Your task to perform on an android device: turn notification dots off Image 0: 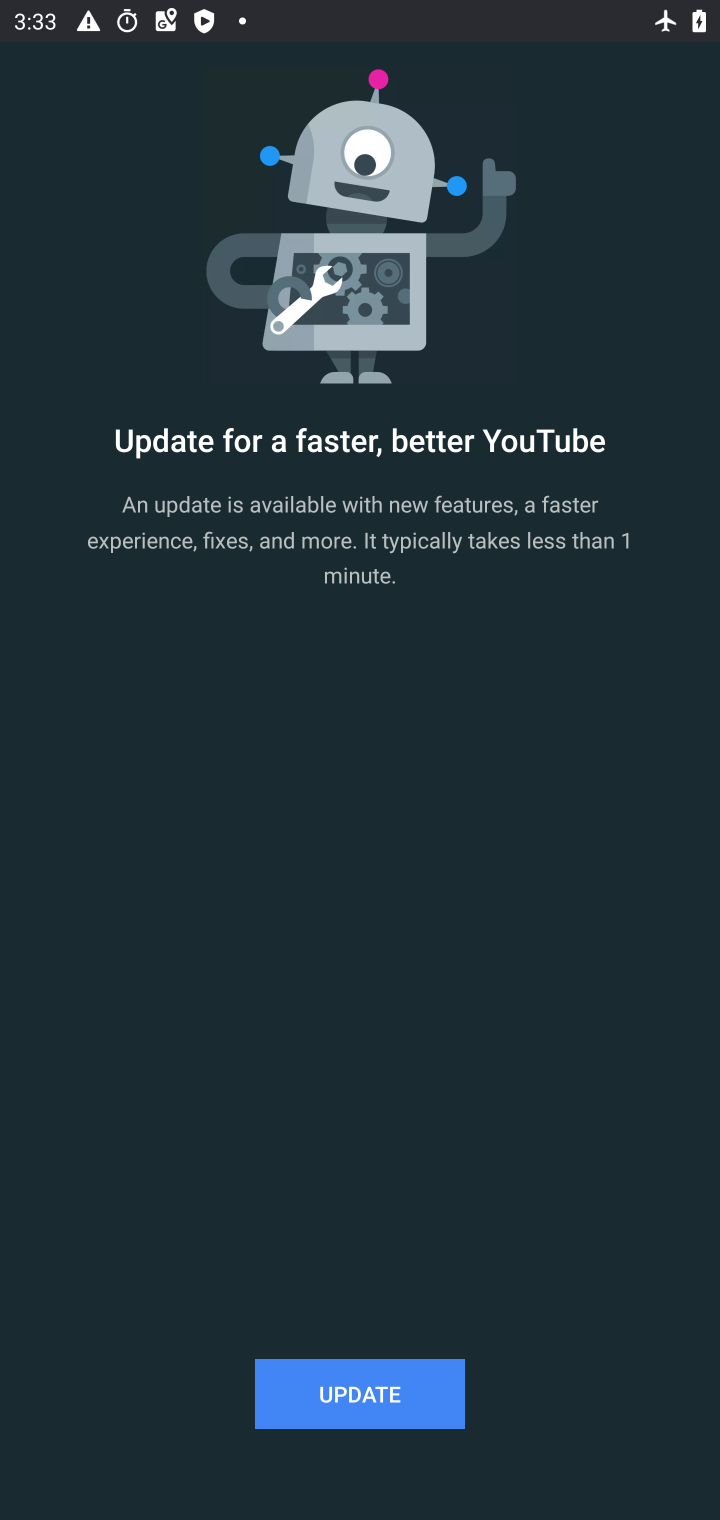
Step 0: press back button
Your task to perform on an android device: turn notification dots off Image 1: 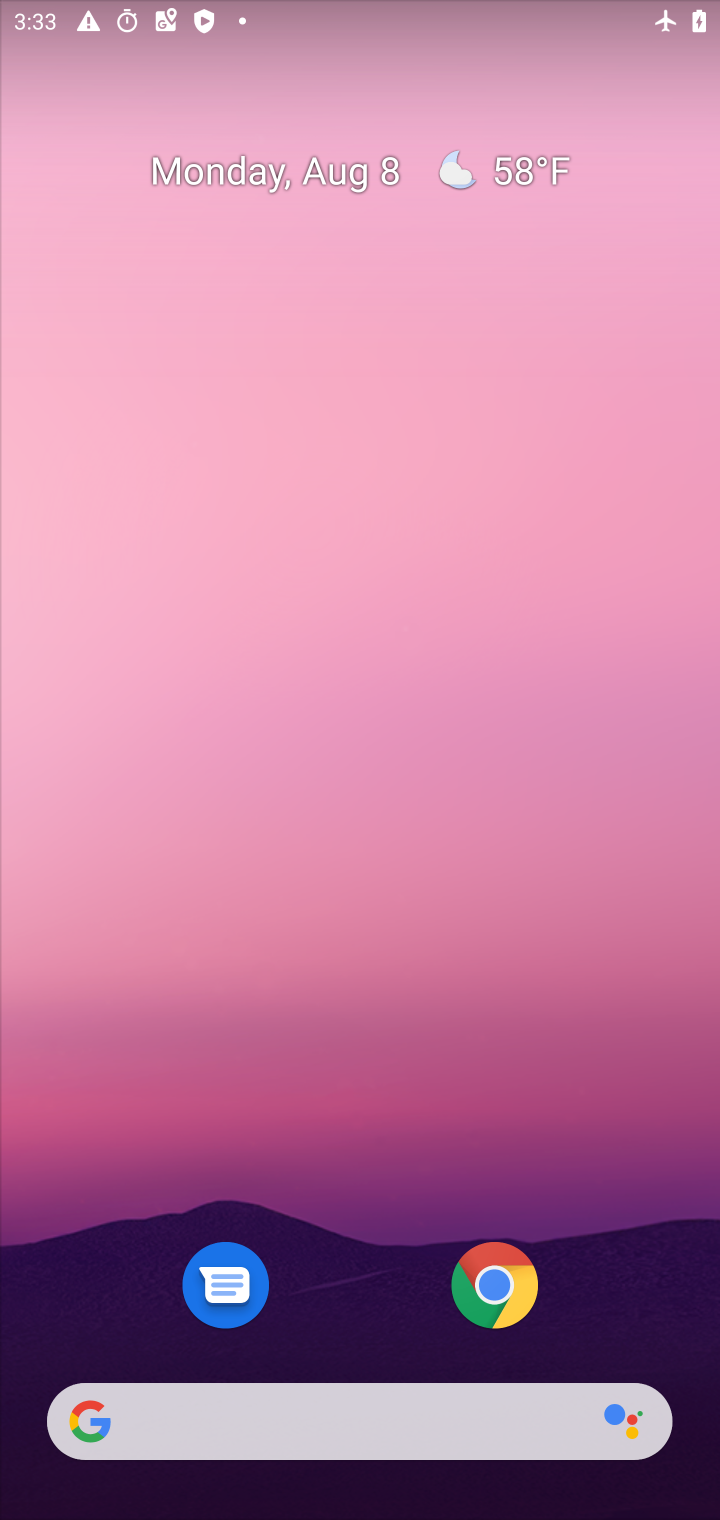
Step 1: drag from (413, 1317) to (421, 67)
Your task to perform on an android device: turn notification dots off Image 2: 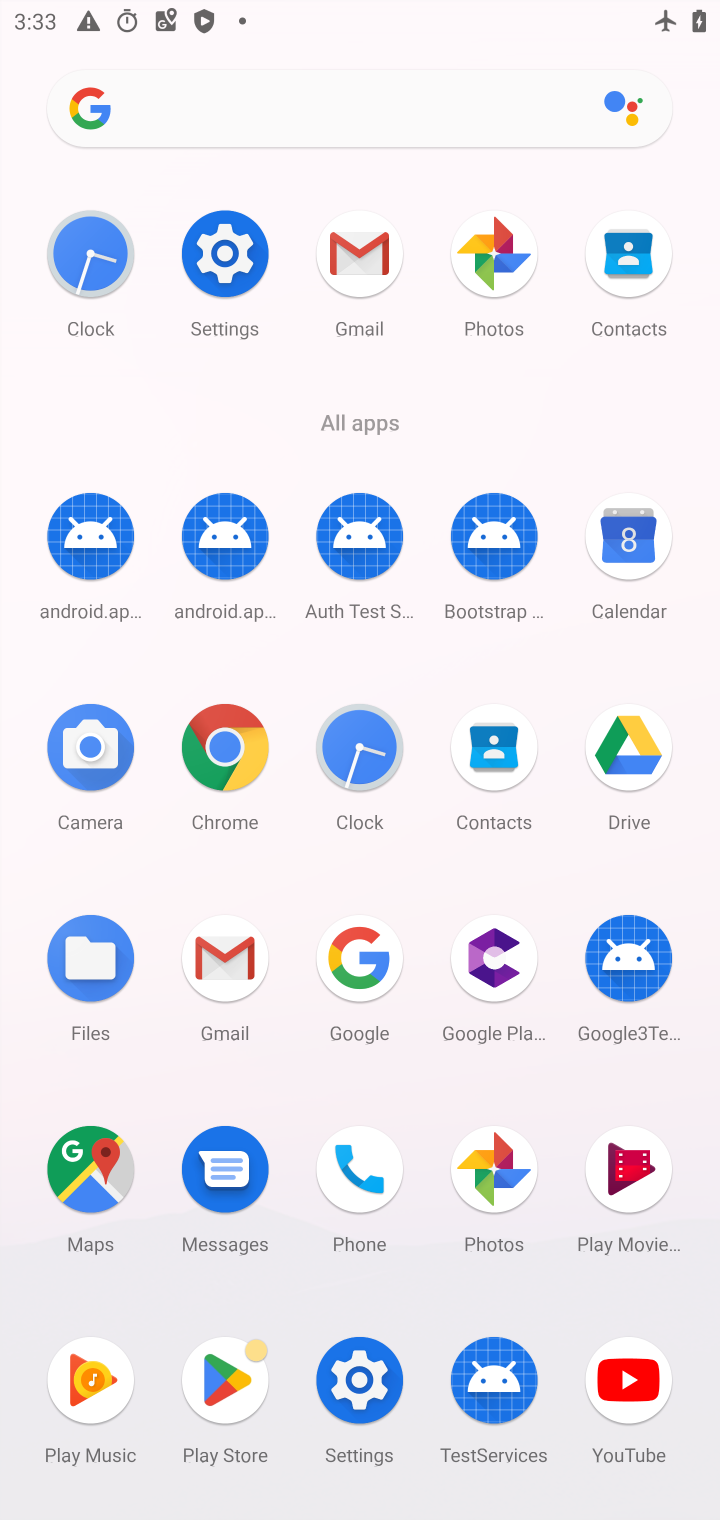
Step 2: click (235, 265)
Your task to perform on an android device: turn notification dots off Image 3: 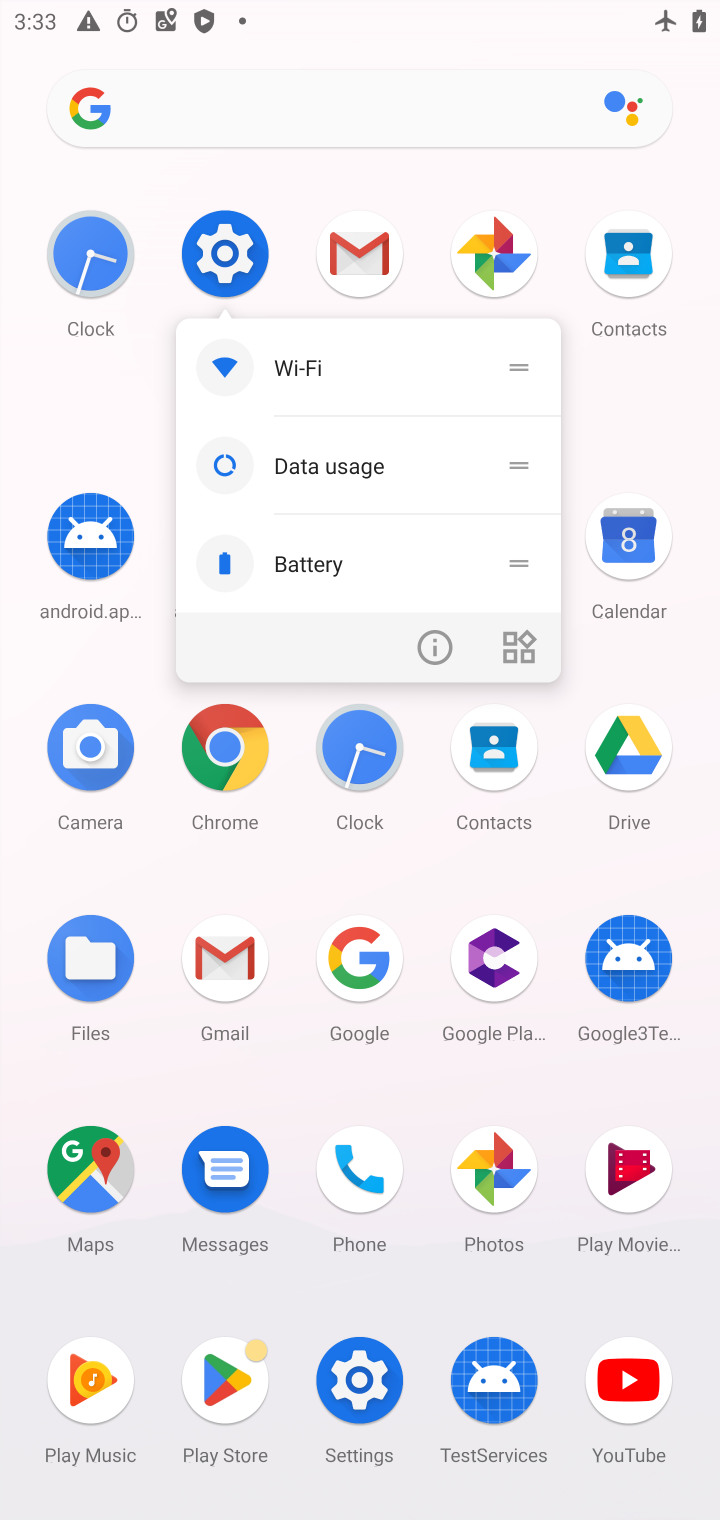
Step 3: click (238, 247)
Your task to perform on an android device: turn notification dots off Image 4: 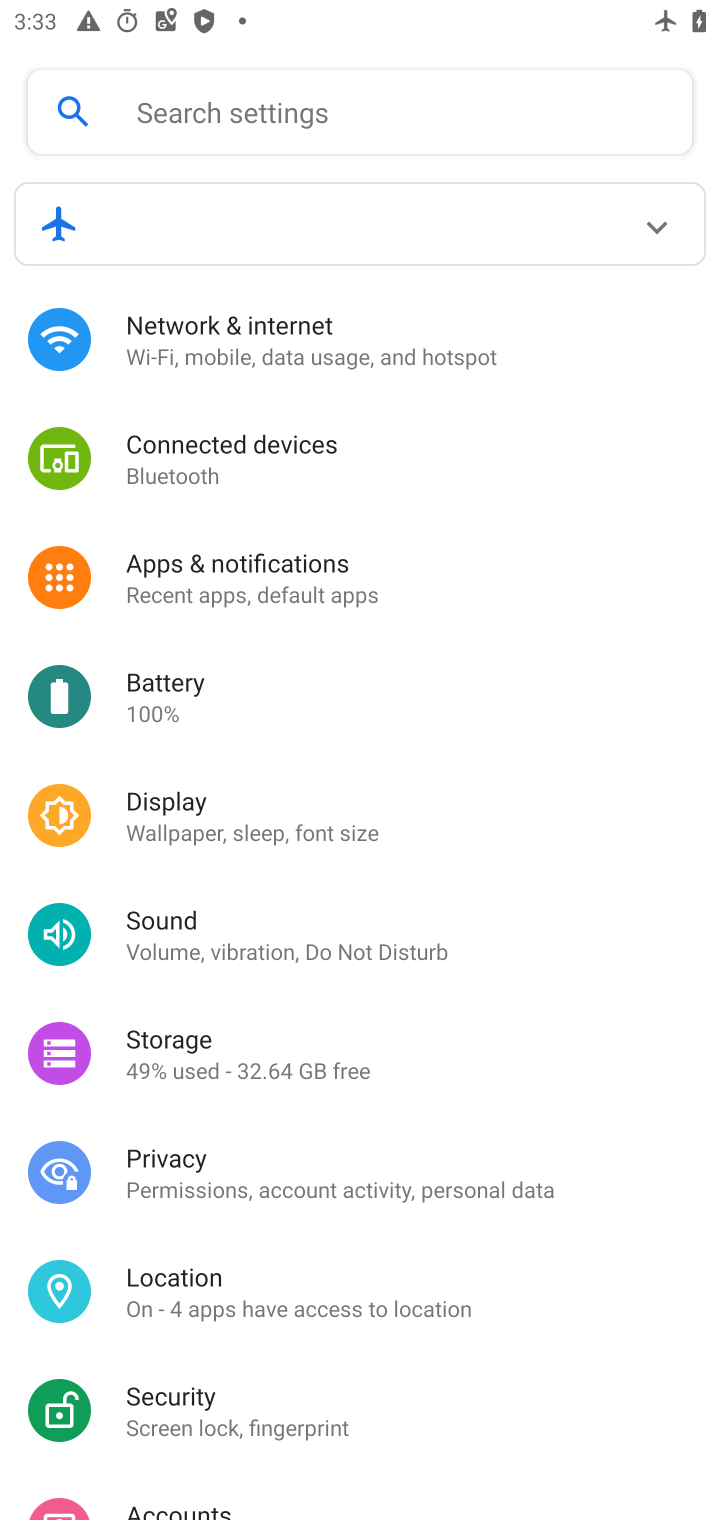
Step 4: click (343, 587)
Your task to perform on an android device: turn notification dots off Image 5: 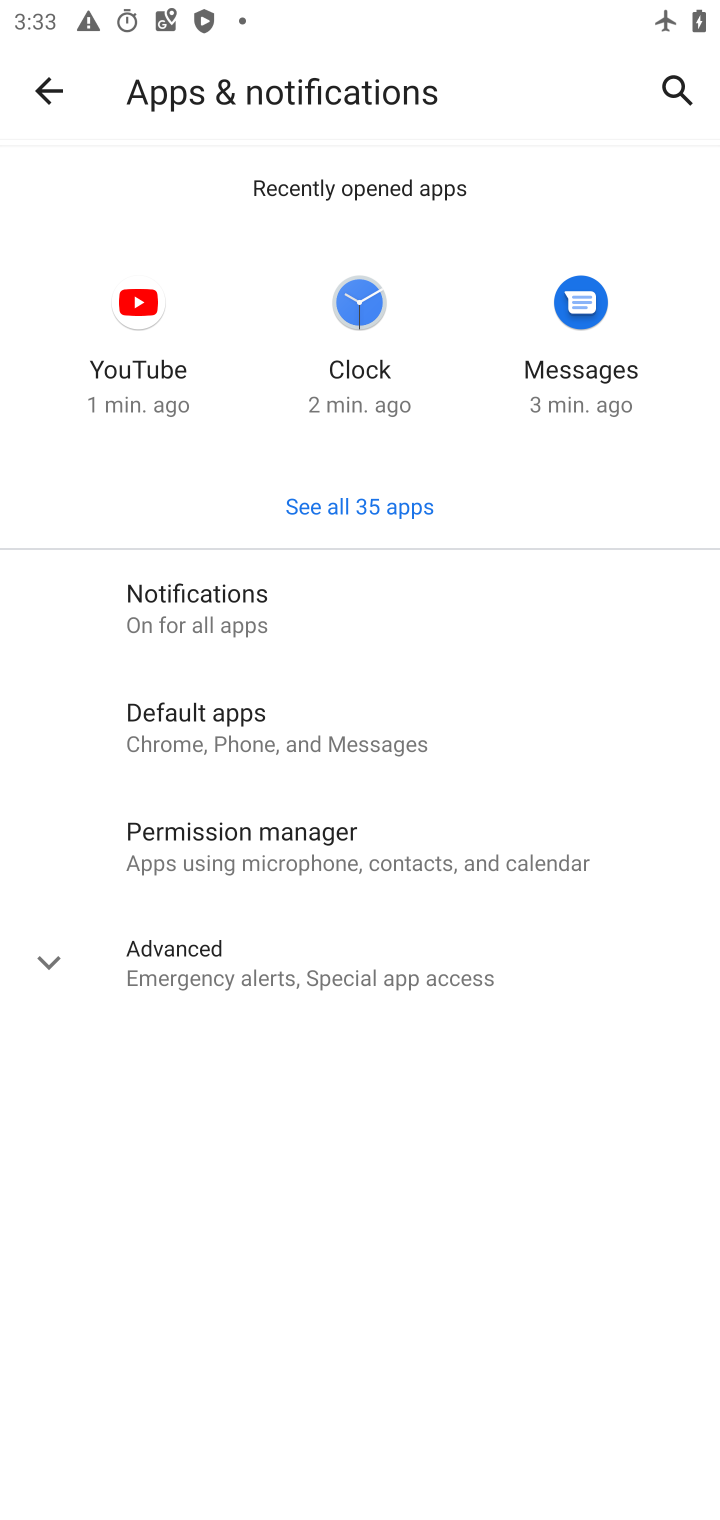
Step 5: click (343, 587)
Your task to perform on an android device: turn notification dots off Image 6: 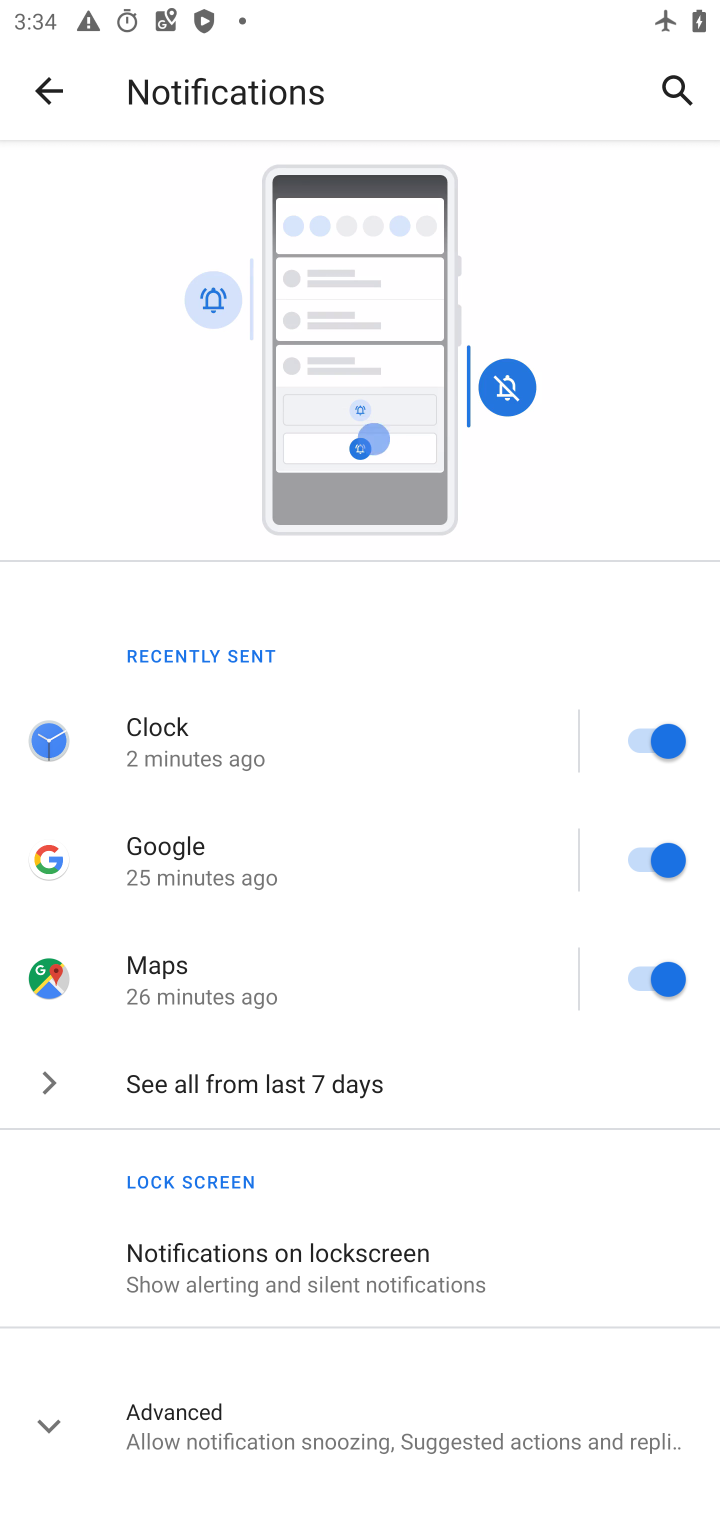
Step 6: drag from (271, 1291) to (359, 178)
Your task to perform on an android device: turn notification dots off Image 7: 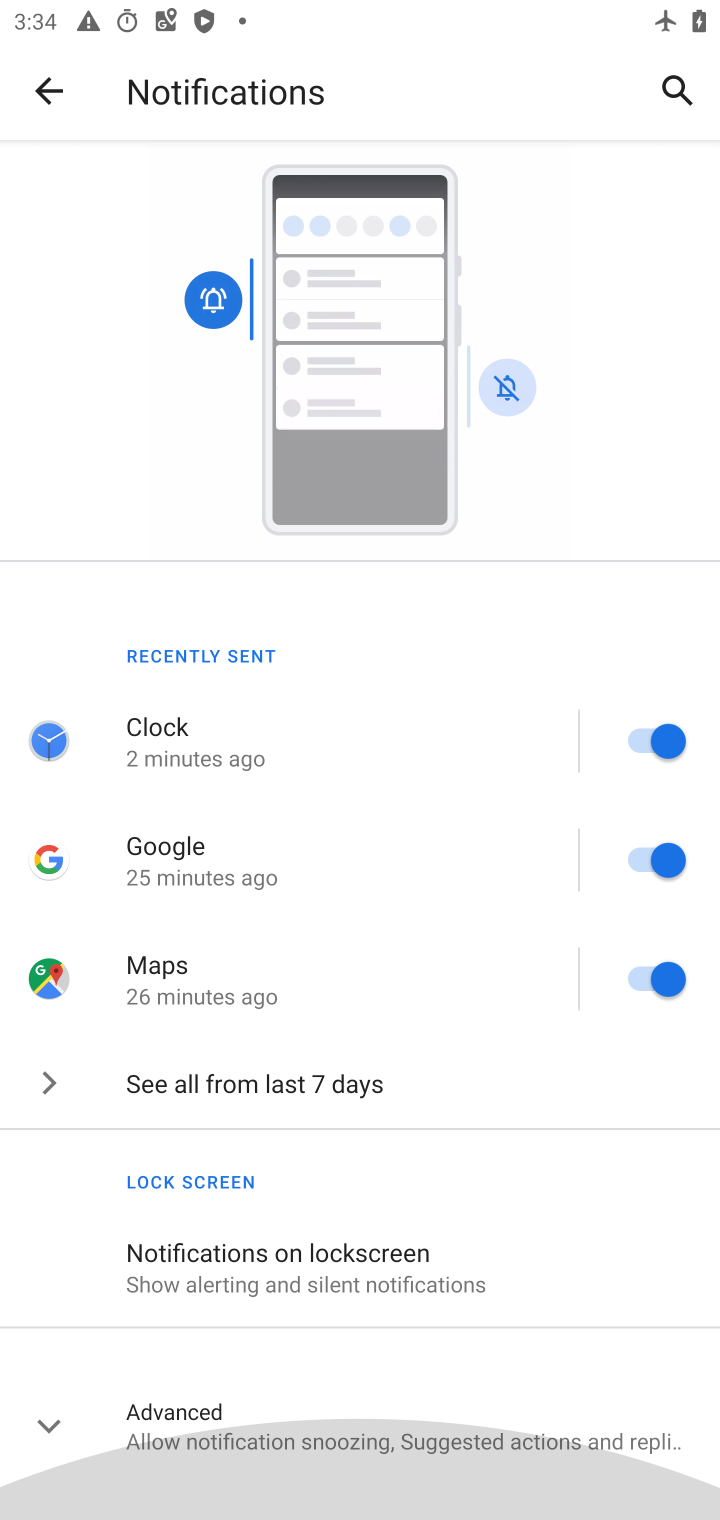
Step 7: click (306, 1406)
Your task to perform on an android device: turn notification dots off Image 8: 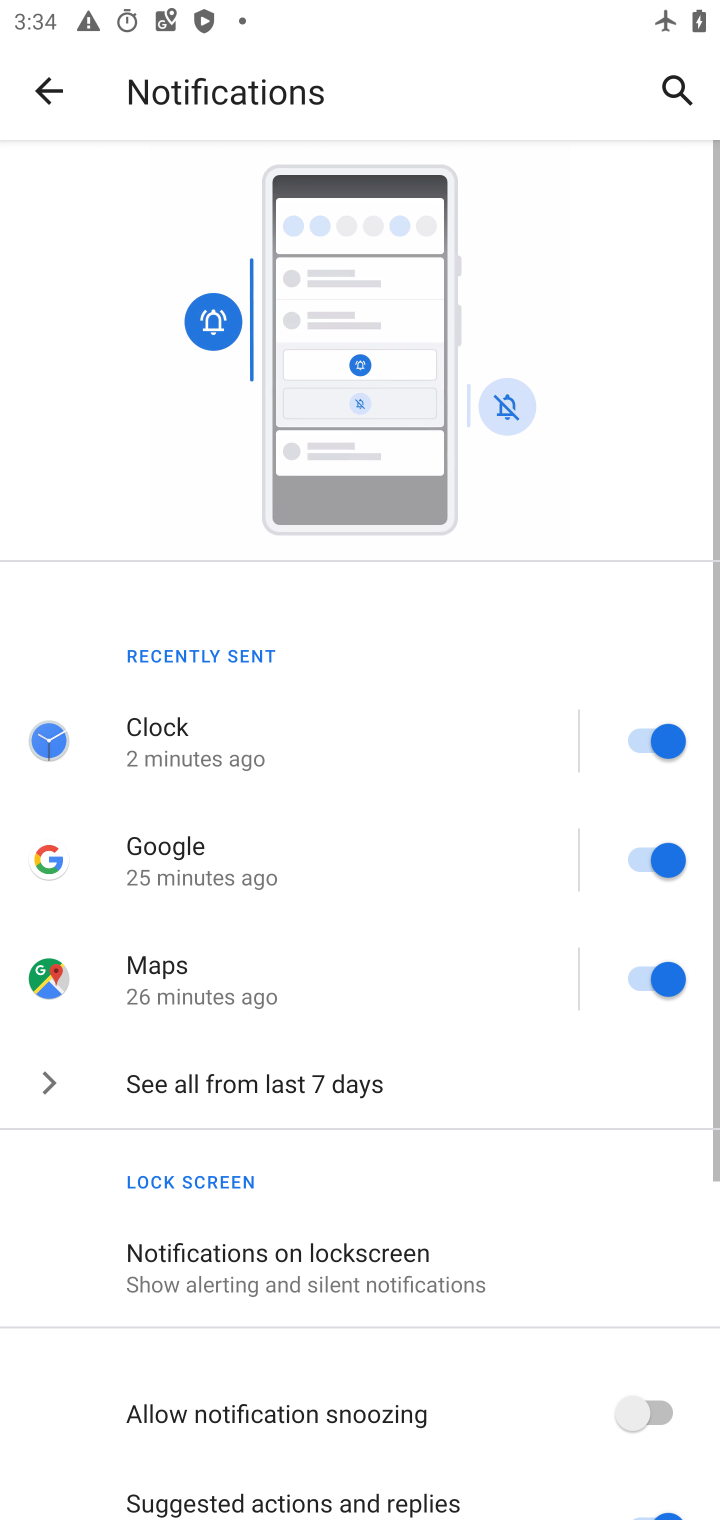
Step 8: drag from (304, 1399) to (392, 86)
Your task to perform on an android device: turn notification dots off Image 9: 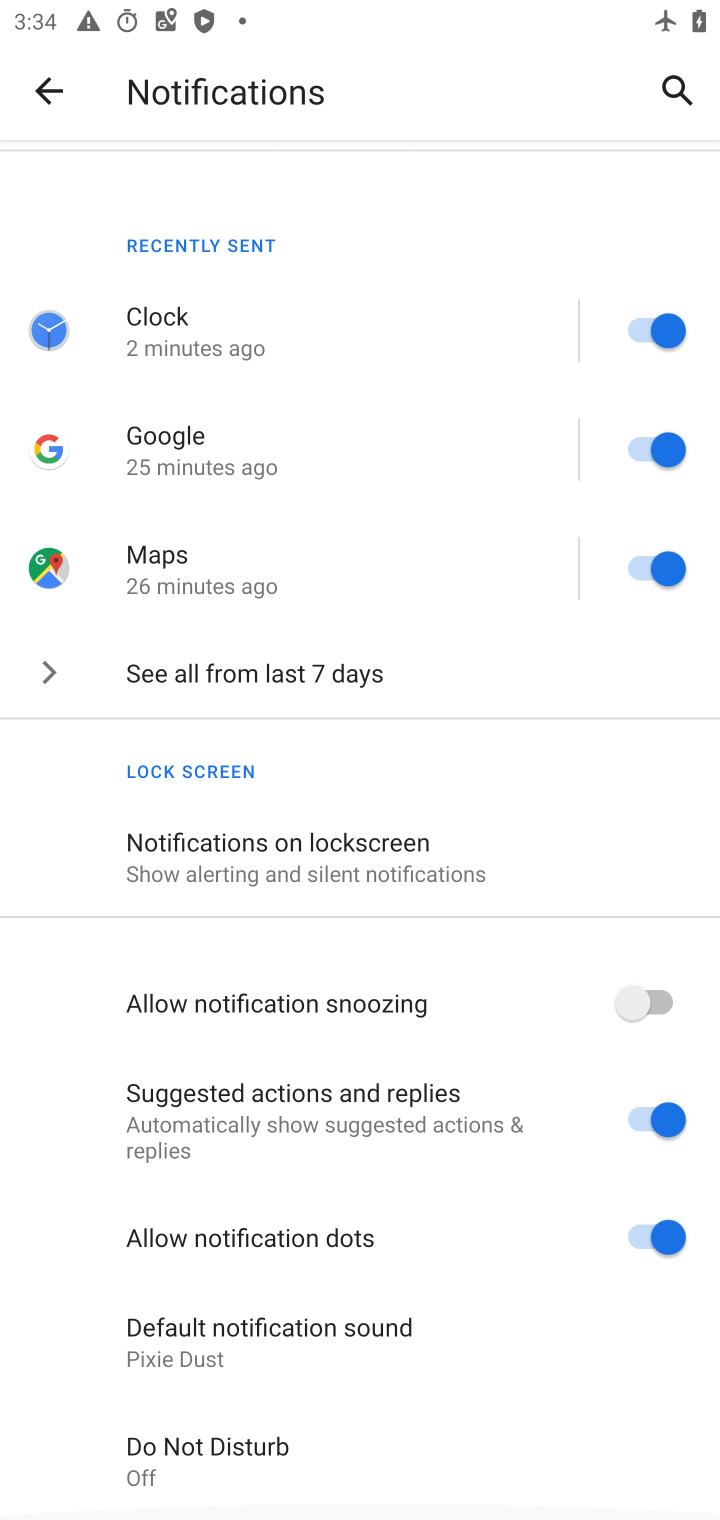
Step 9: click (660, 1236)
Your task to perform on an android device: turn notification dots off Image 10: 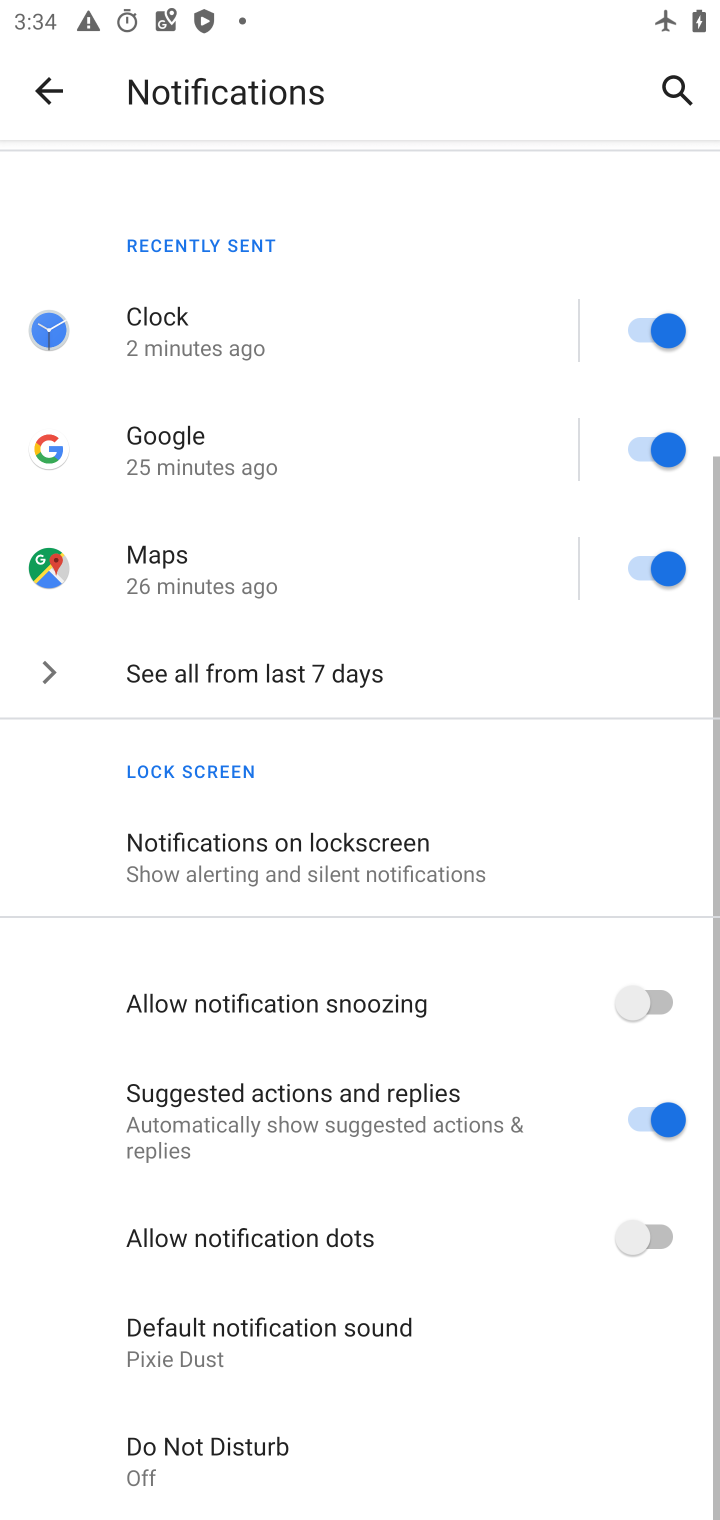
Step 10: task complete